Your task to perform on an android device: Show me recent news Image 0: 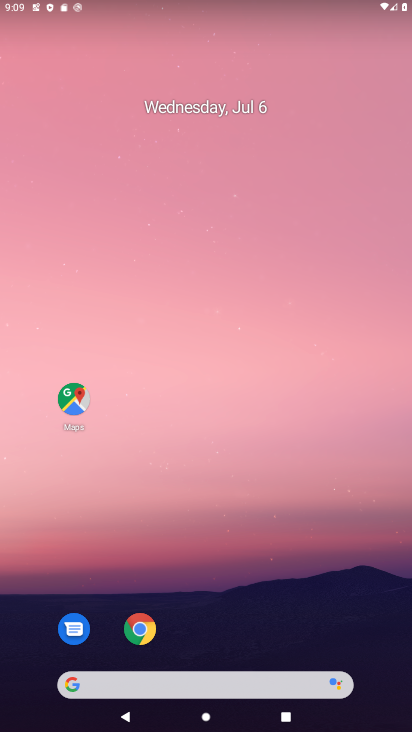
Step 0: drag from (195, 615) to (225, 159)
Your task to perform on an android device: Show me recent news Image 1: 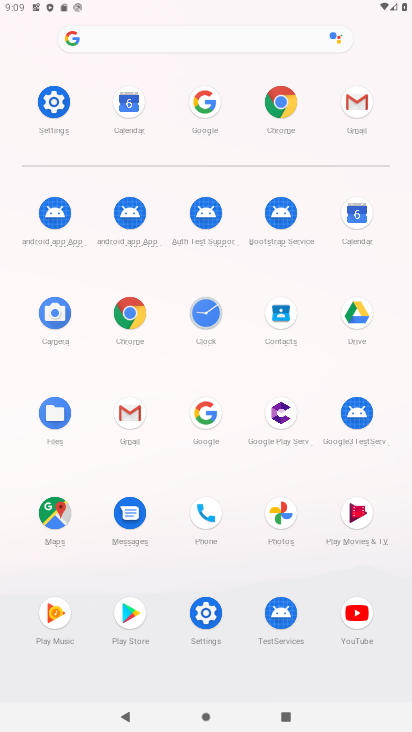
Step 1: click (209, 103)
Your task to perform on an android device: Show me recent news Image 2: 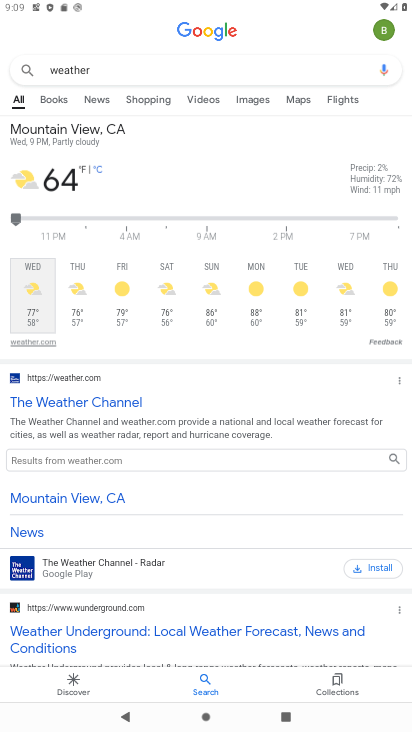
Step 2: click (197, 66)
Your task to perform on an android device: Show me recent news Image 3: 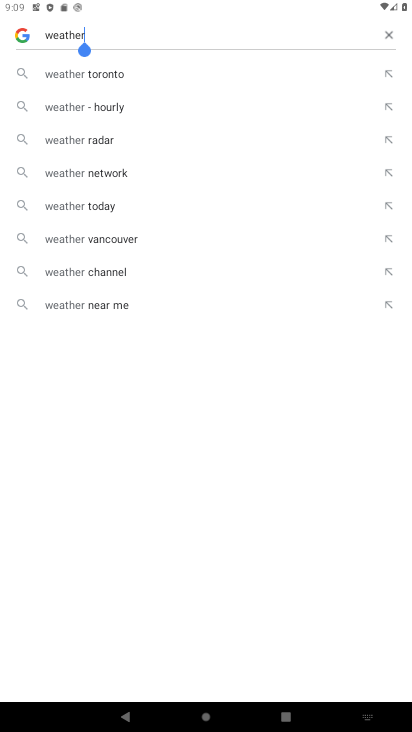
Step 3: click (385, 33)
Your task to perform on an android device: Show me recent news Image 4: 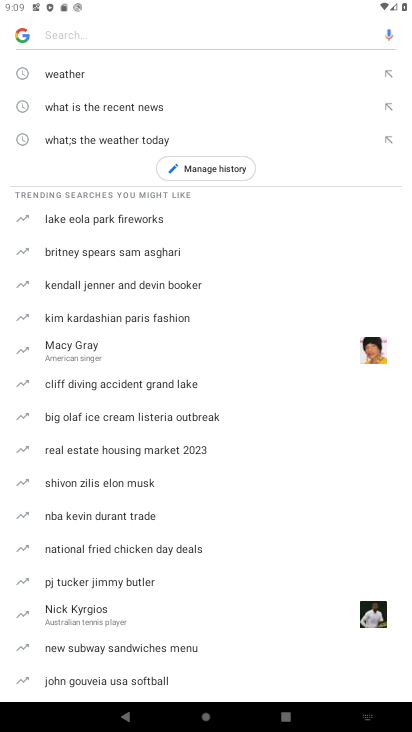
Step 4: click (122, 109)
Your task to perform on an android device: Show me recent news Image 5: 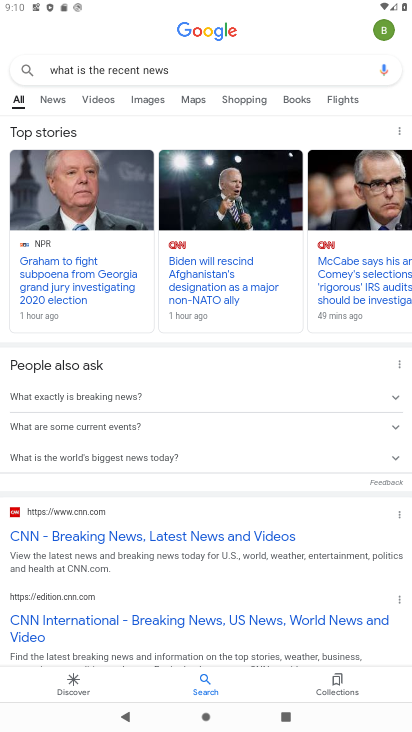
Step 5: task complete